Your task to perform on an android device: Search for "bose soundsport free" on amazon.com, select the first entry, and add it to the cart. Image 0: 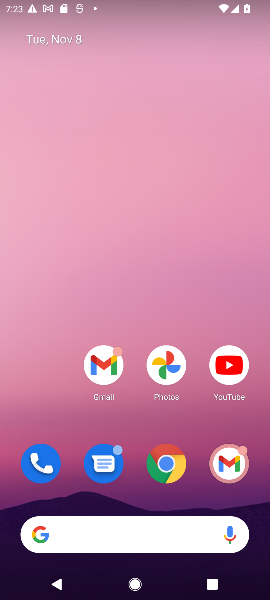
Step 0: click (181, 468)
Your task to perform on an android device: Search for "bose soundsport free" on amazon.com, select the first entry, and add it to the cart. Image 1: 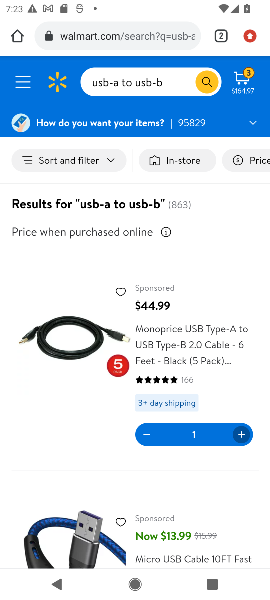
Step 1: click (94, 30)
Your task to perform on an android device: Search for "bose soundsport free" on amazon.com, select the first entry, and add it to the cart. Image 2: 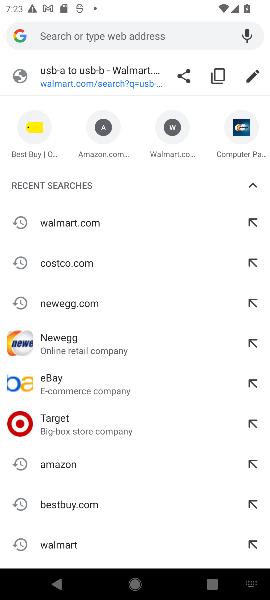
Step 2: click (71, 465)
Your task to perform on an android device: Search for "bose soundsport free" on amazon.com, select the first entry, and add it to the cart. Image 3: 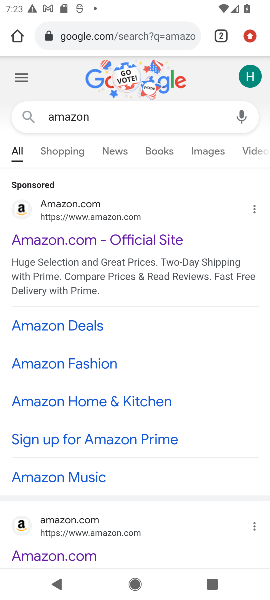
Step 3: click (29, 242)
Your task to perform on an android device: Search for "bose soundsport free" on amazon.com, select the first entry, and add it to the cart. Image 4: 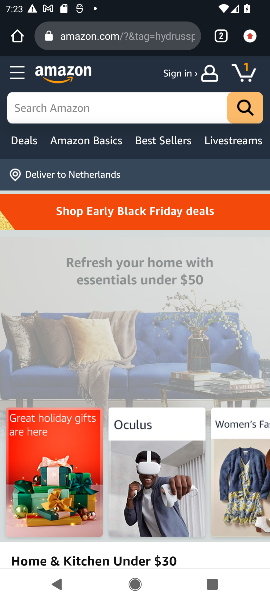
Step 4: click (32, 107)
Your task to perform on an android device: Search for "bose soundsport free" on amazon.com, select the first entry, and add it to the cart. Image 5: 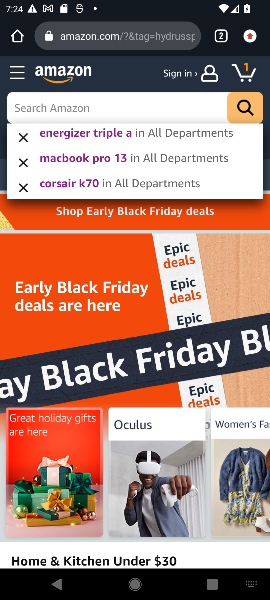
Step 5: type "bose soundsport free"
Your task to perform on an android device: Search for "bose soundsport free" on amazon.com, select the first entry, and add it to the cart. Image 6: 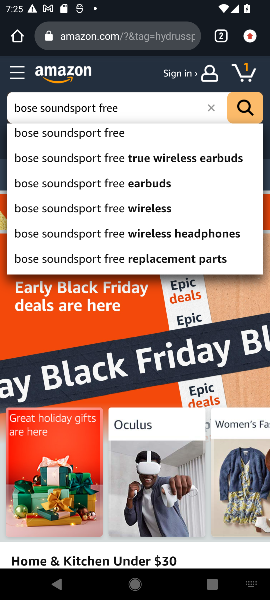
Step 6: click (250, 104)
Your task to perform on an android device: Search for "bose soundsport free" on amazon.com, select the first entry, and add it to the cart. Image 7: 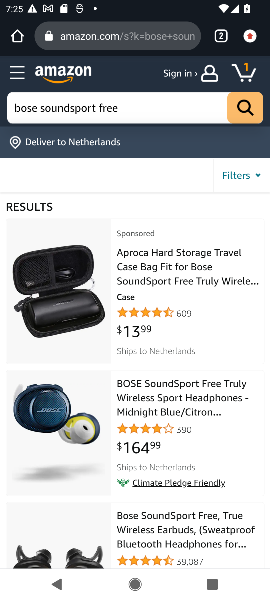
Step 7: click (150, 390)
Your task to perform on an android device: Search for "bose soundsport free" on amazon.com, select the first entry, and add it to the cart. Image 8: 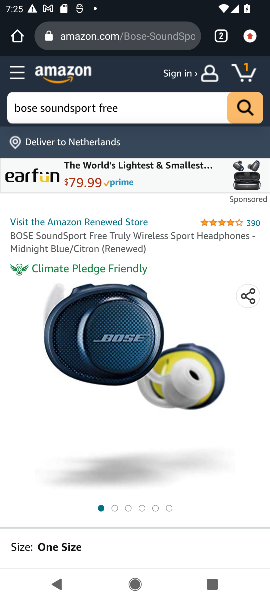
Step 8: click (34, 146)
Your task to perform on an android device: Search for "bose soundsport free" on amazon.com, select the first entry, and add it to the cart. Image 9: 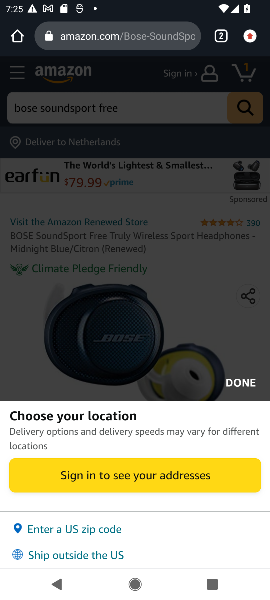
Step 9: click (151, 160)
Your task to perform on an android device: Search for "bose soundsport free" on amazon.com, select the first entry, and add it to the cart. Image 10: 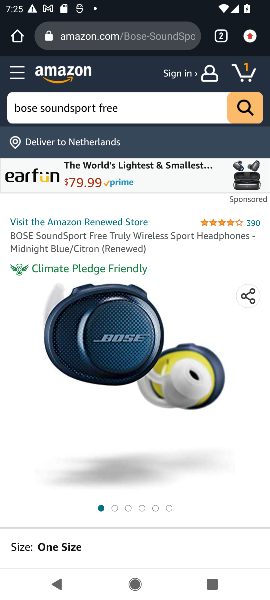
Step 10: click (112, 267)
Your task to perform on an android device: Search for "bose soundsport free" on amazon.com, select the first entry, and add it to the cart. Image 11: 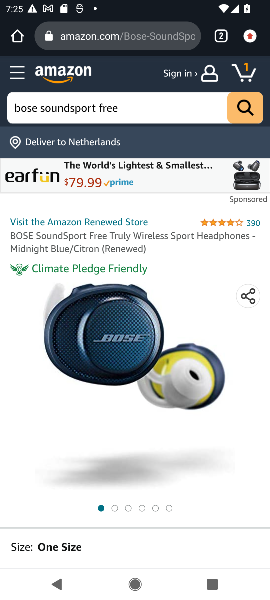
Step 11: click (243, 387)
Your task to perform on an android device: Search for "bose soundsport free" on amazon.com, select the first entry, and add it to the cart. Image 12: 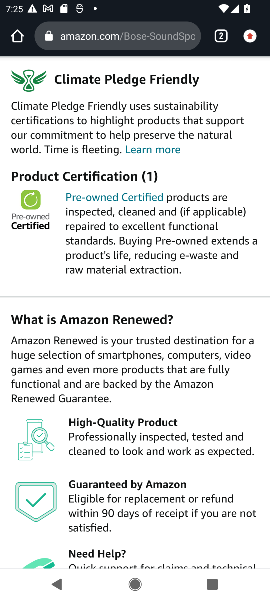
Step 12: press back button
Your task to perform on an android device: Search for "bose soundsport free" on amazon.com, select the first entry, and add it to the cart. Image 13: 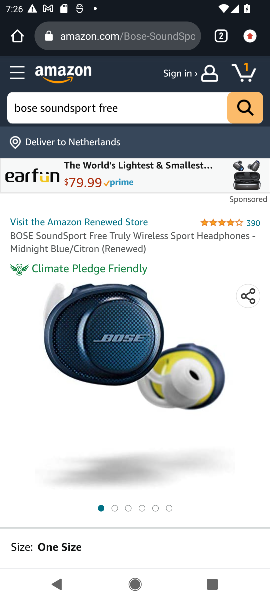
Step 13: drag from (113, 554) to (172, 186)
Your task to perform on an android device: Search for "bose soundsport free" on amazon.com, select the first entry, and add it to the cart. Image 14: 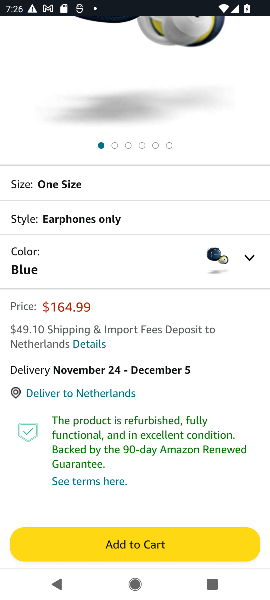
Step 14: click (125, 535)
Your task to perform on an android device: Search for "bose soundsport free" on amazon.com, select the first entry, and add it to the cart. Image 15: 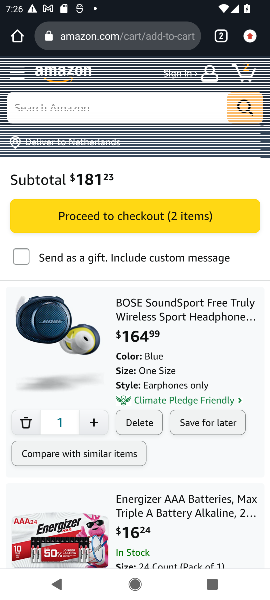
Step 15: task complete